Your task to perform on an android device: What's on my calendar today? Image 0: 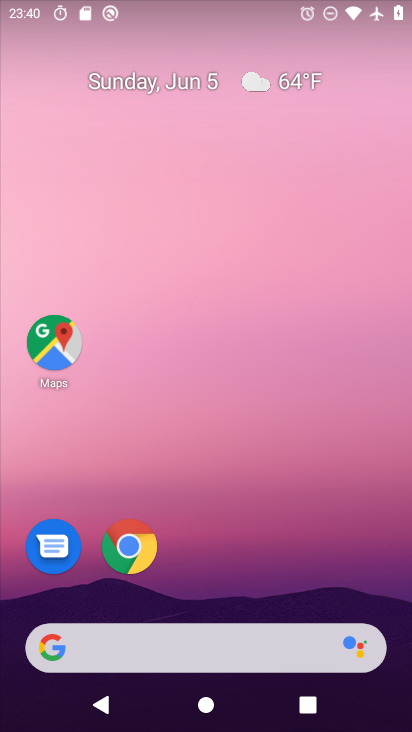
Step 0: drag from (178, 584) to (138, 56)
Your task to perform on an android device: What's on my calendar today? Image 1: 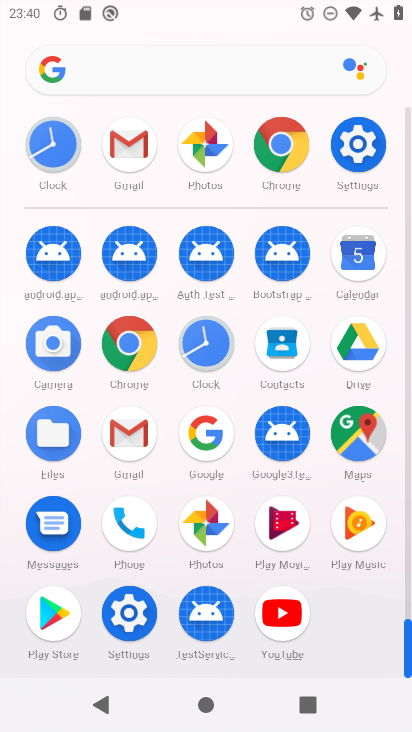
Step 1: click (356, 271)
Your task to perform on an android device: What's on my calendar today? Image 2: 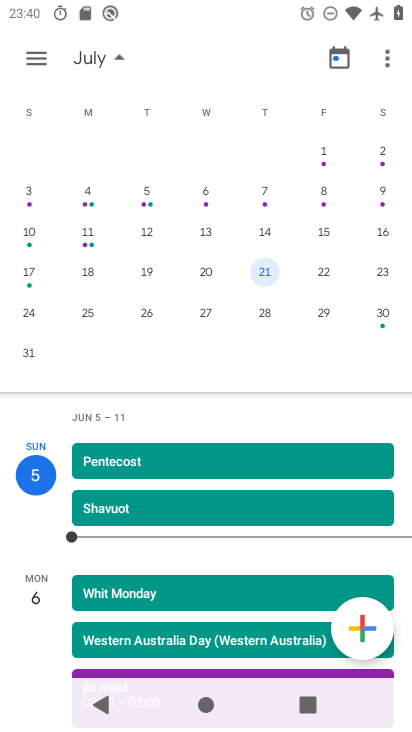
Step 2: click (98, 55)
Your task to perform on an android device: What's on my calendar today? Image 3: 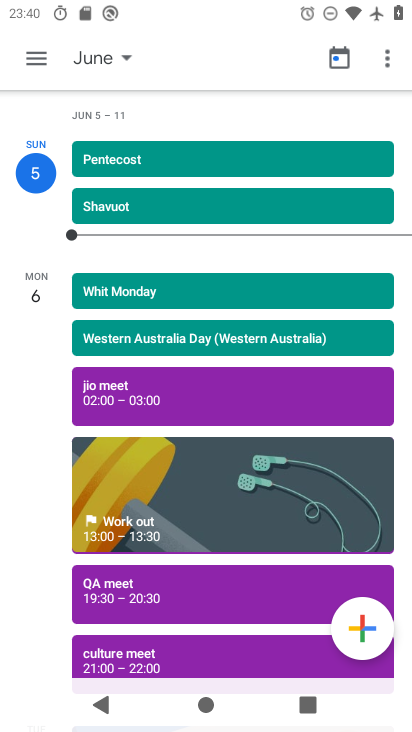
Step 3: click (107, 69)
Your task to perform on an android device: What's on my calendar today? Image 4: 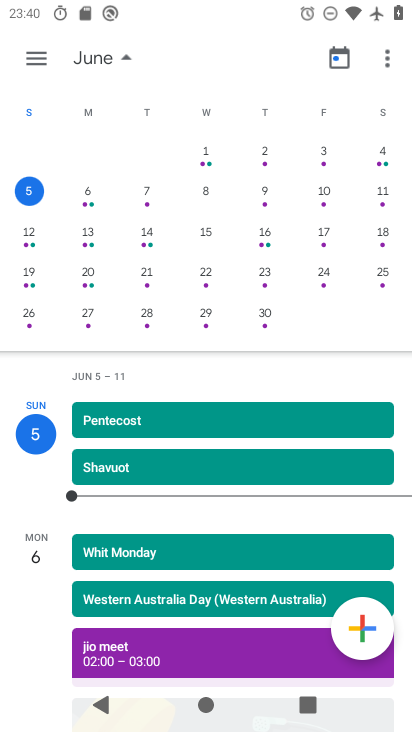
Step 4: click (25, 187)
Your task to perform on an android device: What's on my calendar today? Image 5: 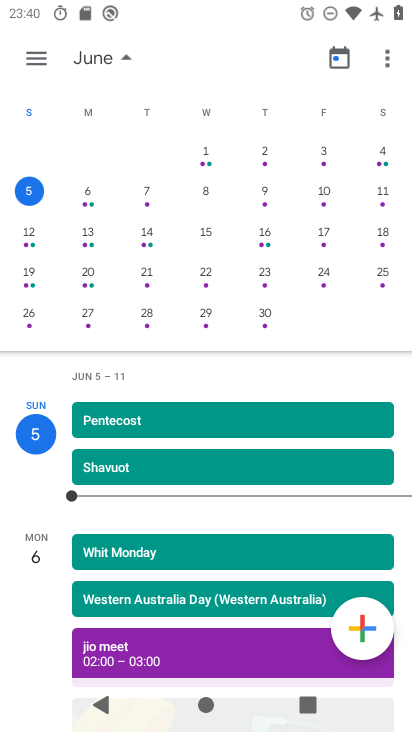
Step 5: task complete